Your task to perform on an android device: Open sound settings Image 0: 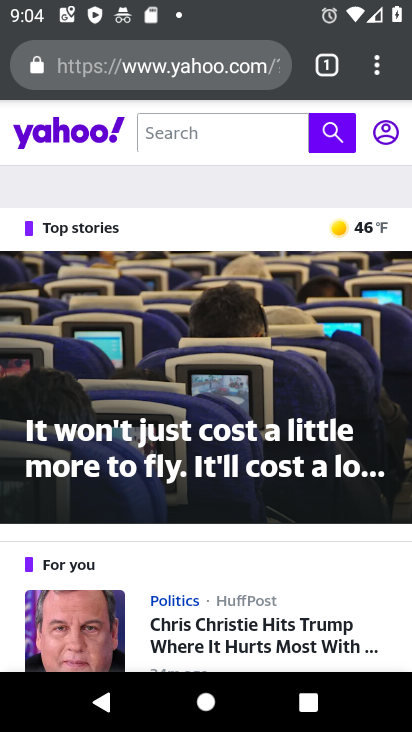
Step 0: press home button
Your task to perform on an android device: Open sound settings Image 1: 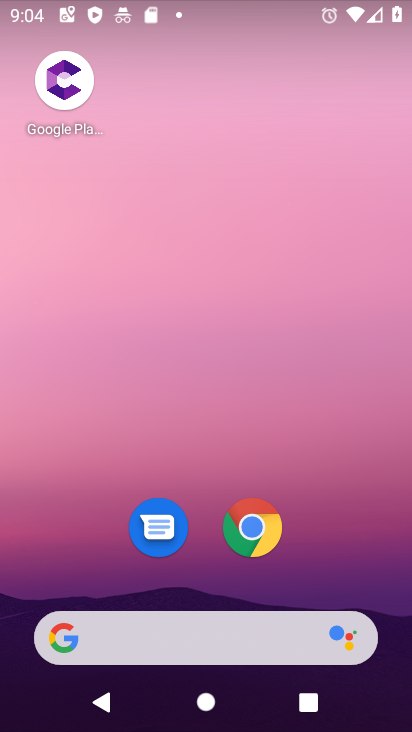
Step 1: drag from (328, 551) to (336, 7)
Your task to perform on an android device: Open sound settings Image 2: 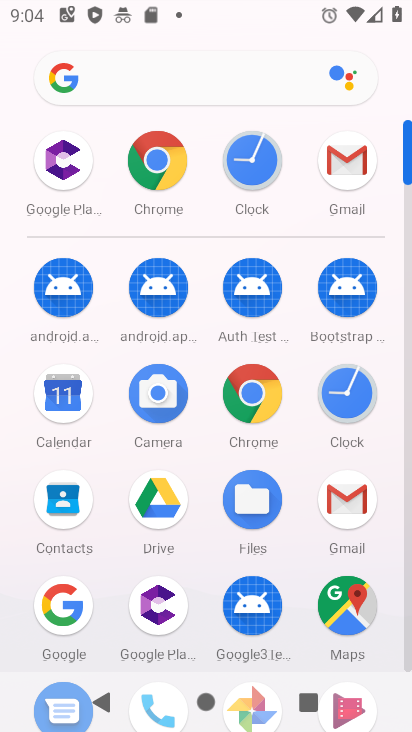
Step 2: drag from (404, 562) to (412, 518)
Your task to perform on an android device: Open sound settings Image 3: 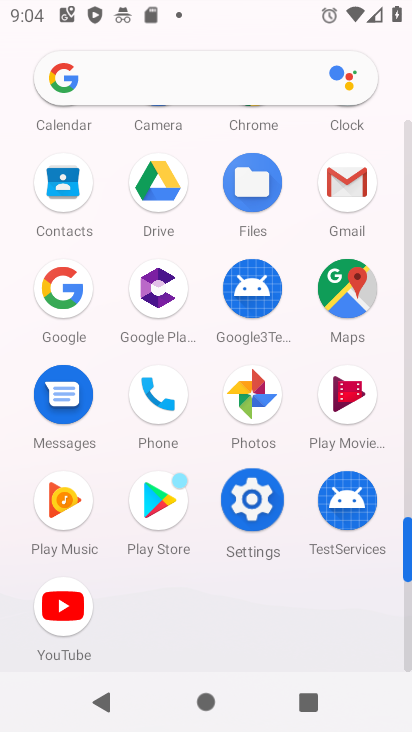
Step 3: click (257, 511)
Your task to perform on an android device: Open sound settings Image 4: 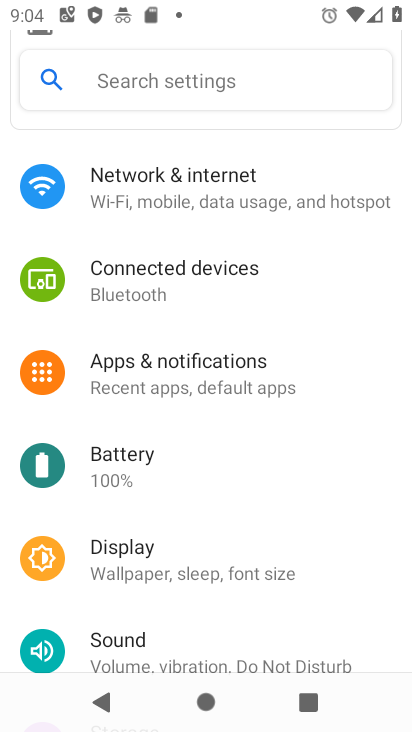
Step 4: click (140, 649)
Your task to perform on an android device: Open sound settings Image 5: 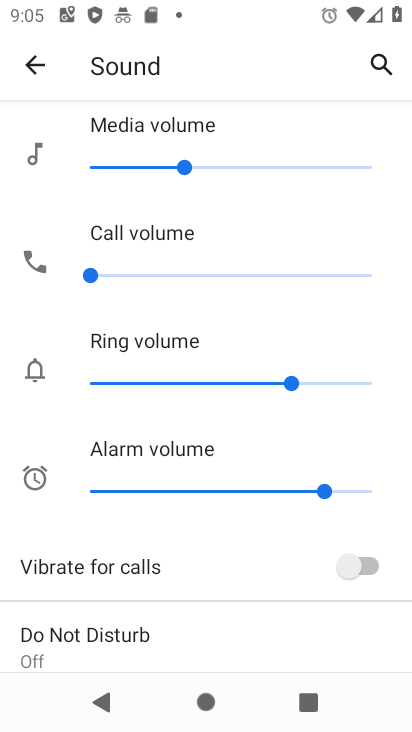
Step 5: task complete